Your task to perform on an android device: Open Yahoo.com Image 0: 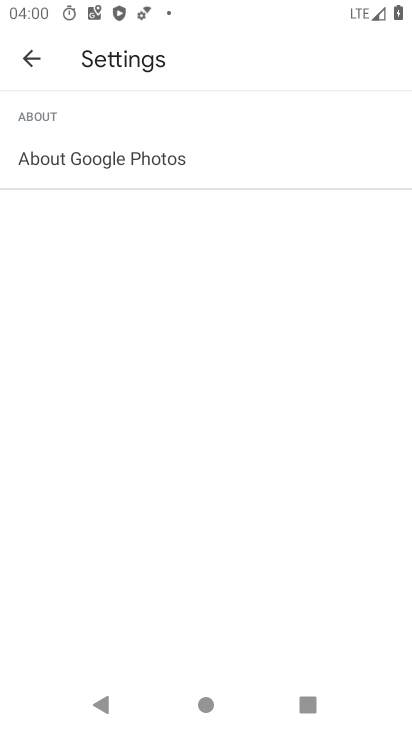
Step 0: press home button
Your task to perform on an android device: Open Yahoo.com Image 1: 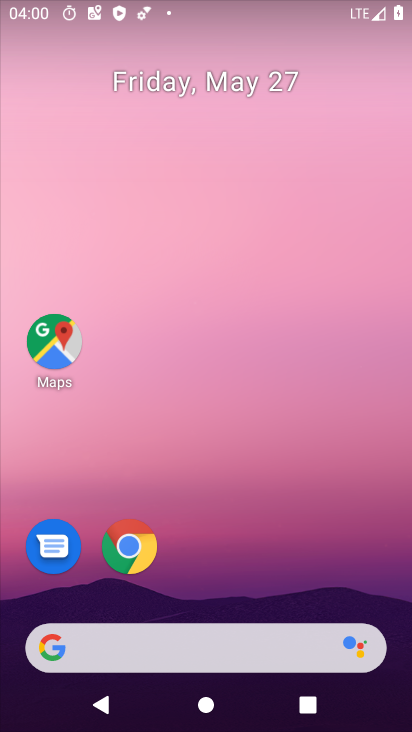
Step 1: click (130, 543)
Your task to perform on an android device: Open Yahoo.com Image 2: 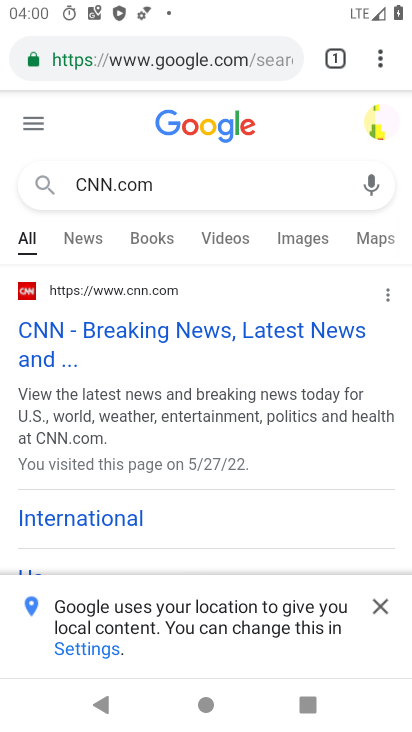
Step 2: click (289, 58)
Your task to perform on an android device: Open Yahoo.com Image 3: 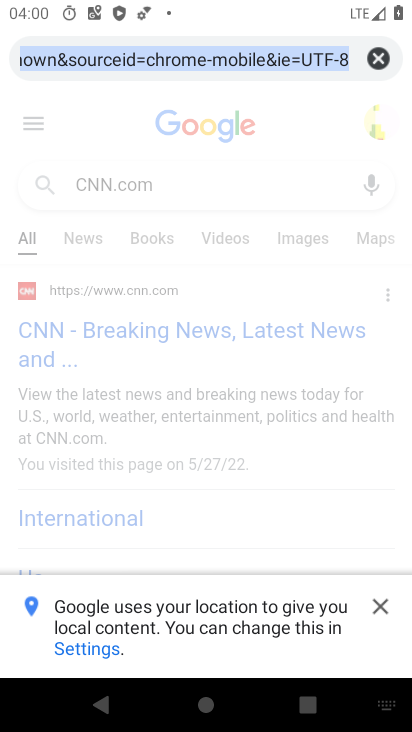
Step 3: click (379, 56)
Your task to perform on an android device: Open Yahoo.com Image 4: 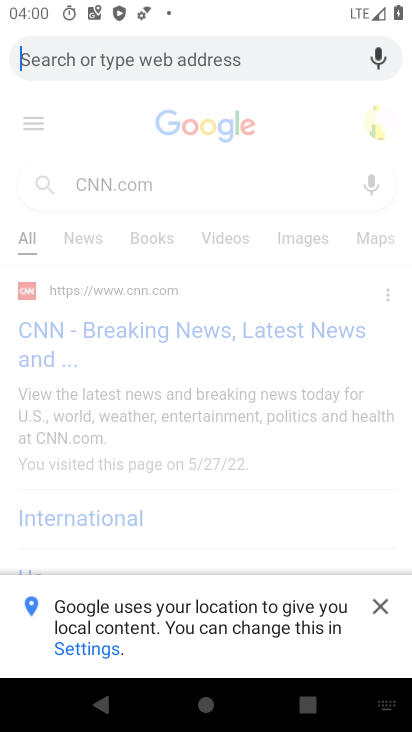
Step 4: type "Yahoo.com"
Your task to perform on an android device: Open Yahoo.com Image 5: 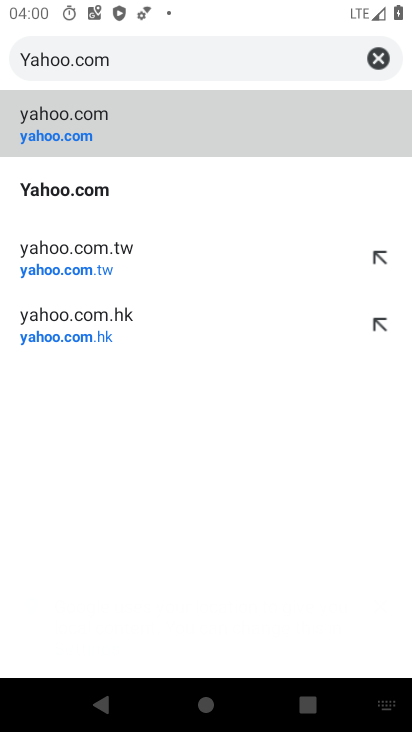
Step 5: click (57, 188)
Your task to perform on an android device: Open Yahoo.com Image 6: 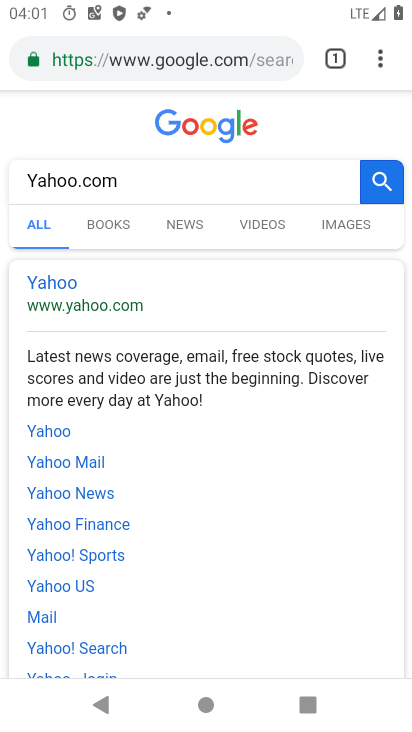
Step 6: task complete